Your task to perform on an android device: open app "Move to iOS" (install if not already installed) Image 0: 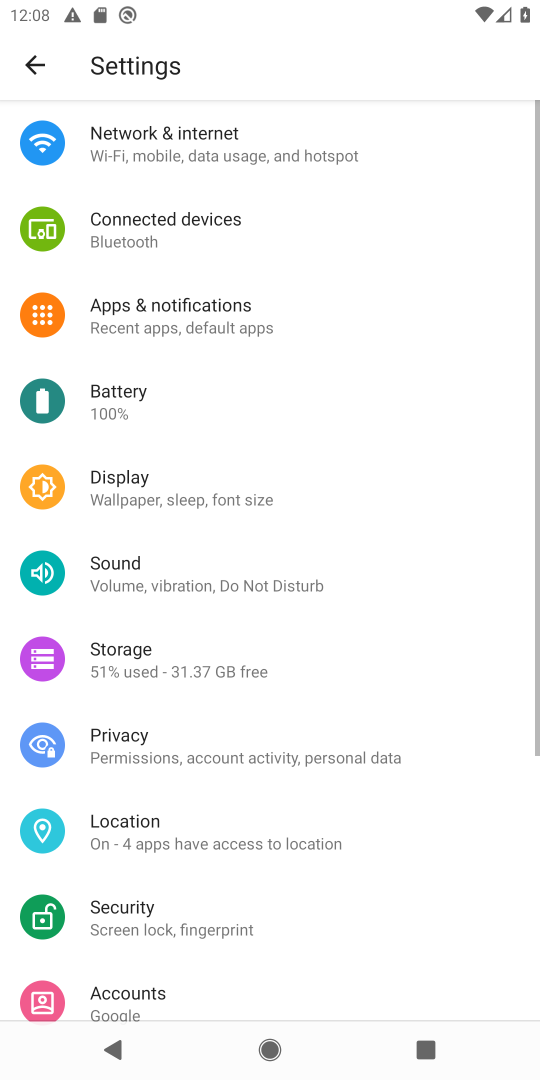
Step 0: press home button
Your task to perform on an android device: open app "Move to iOS" (install if not already installed) Image 1: 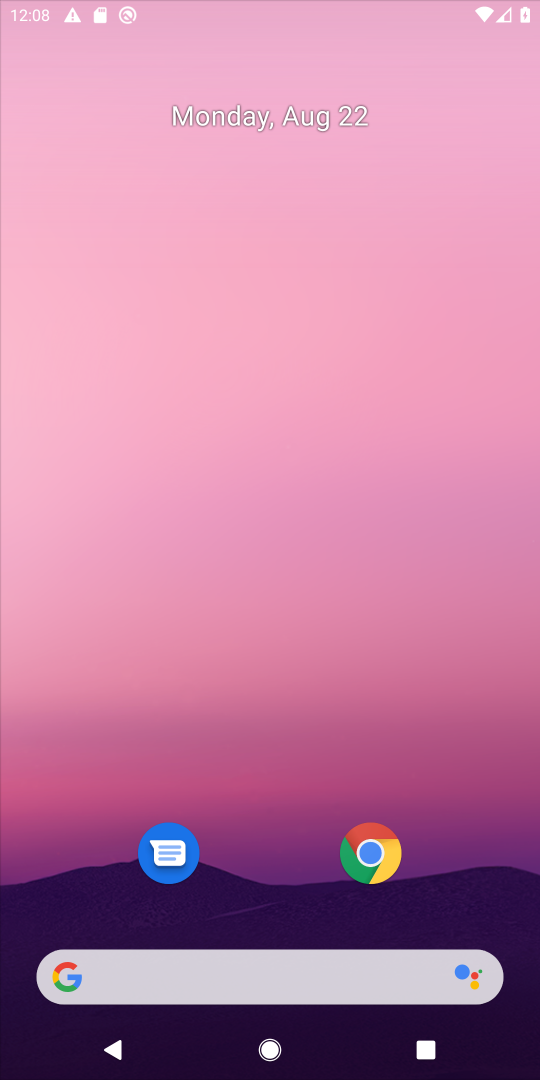
Step 1: drag from (263, 987) to (289, 225)
Your task to perform on an android device: open app "Move to iOS" (install if not already installed) Image 2: 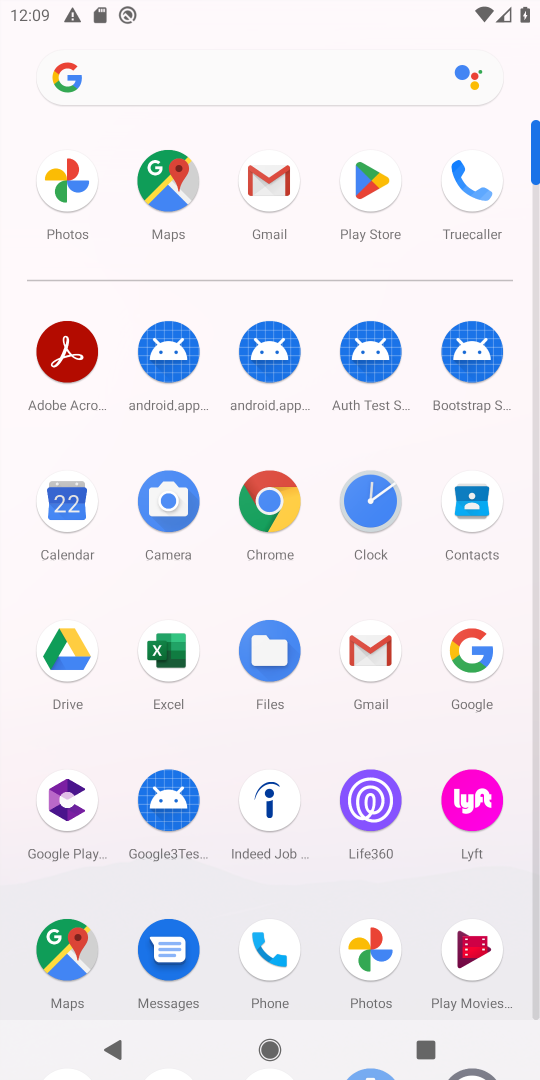
Step 2: click (377, 168)
Your task to perform on an android device: open app "Move to iOS" (install if not already installed) Image 3: 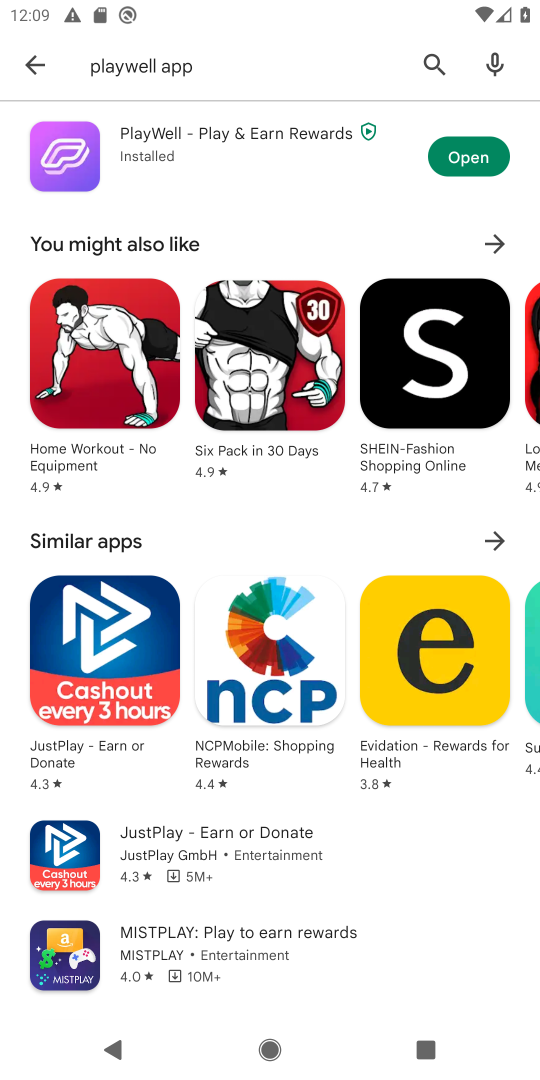
Step 3: click (32, 61)
Your task to perform on an android device: open app "Move to iOS" (install if not already installed) Image 4: 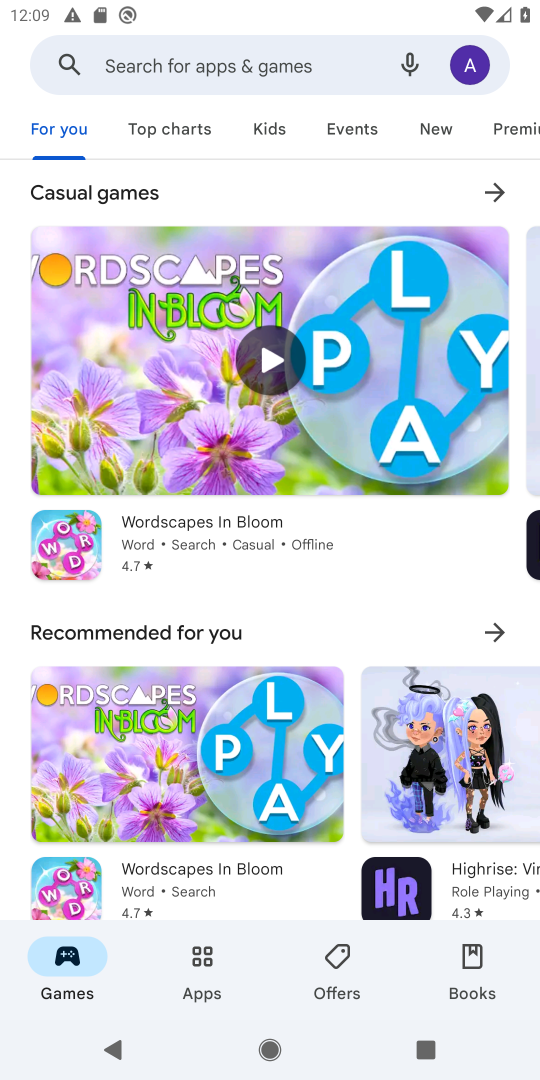
Step 4: click (237, 61)
Your task to perform on an android device: open app "Move to iOS" (install if not already installed) Image 5: 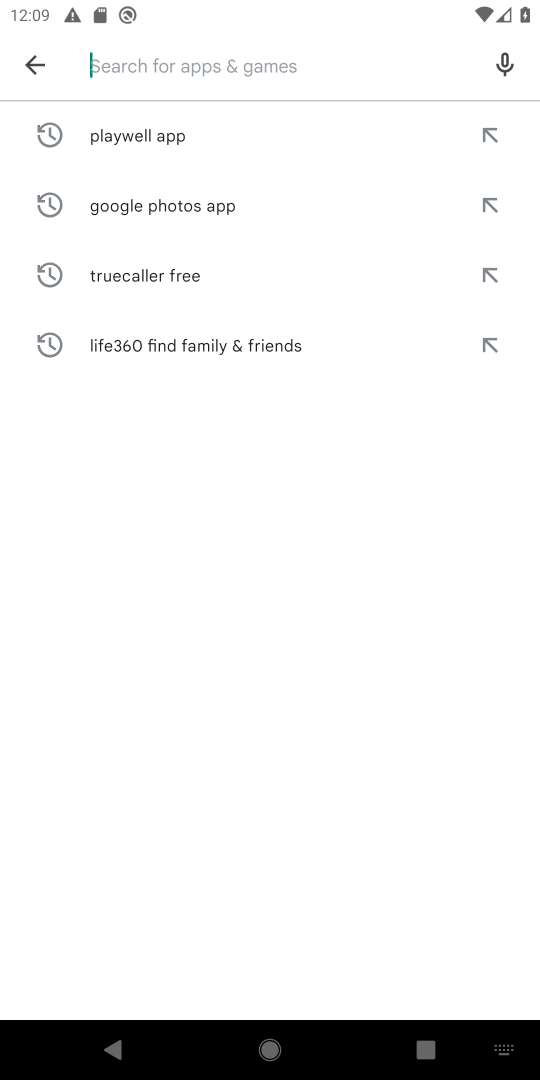
Step 5: type "Move to iOS "
Your task to perform on an android device: open app "Move to iOS" (install if not already installed) Image 6: 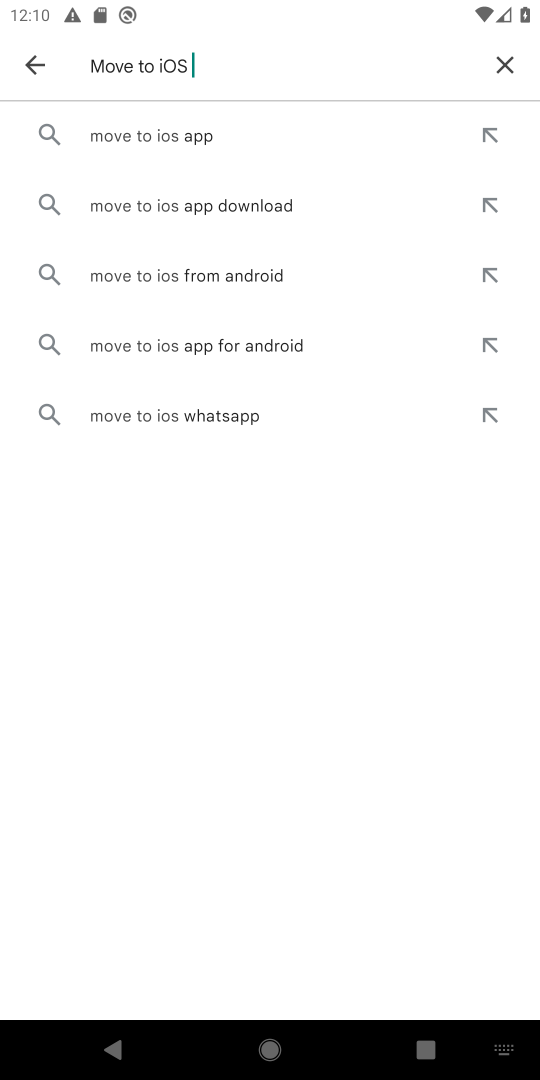
Step 6: click (205, 121)
Your task to perform on an android device: open app "Move to iOS" (install if not already installed) Image 7: 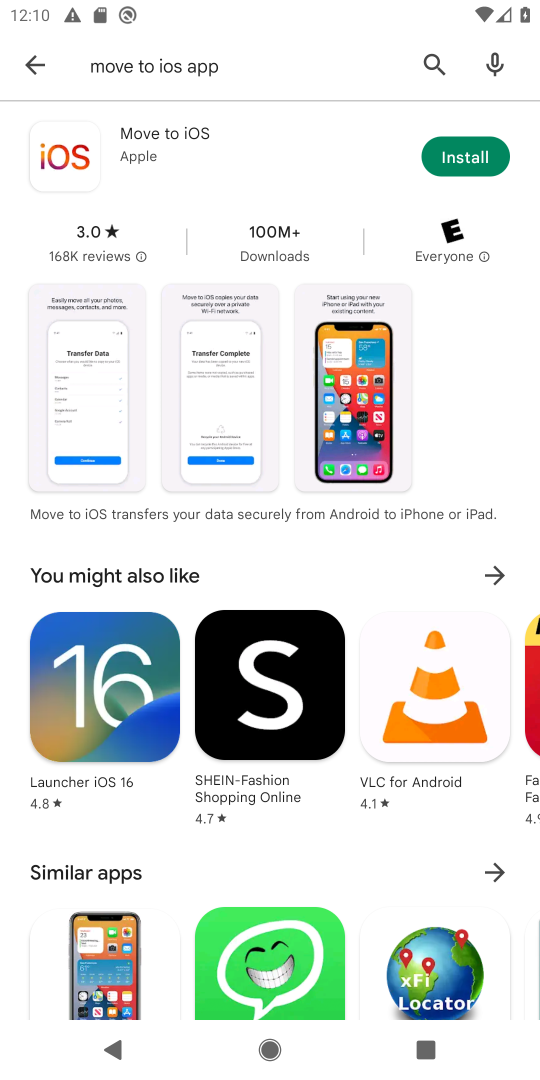
Step 7: click (470, 162)
Your task to perform on an android device: open app "Move to iOS" (install if not already installed) Image 8: 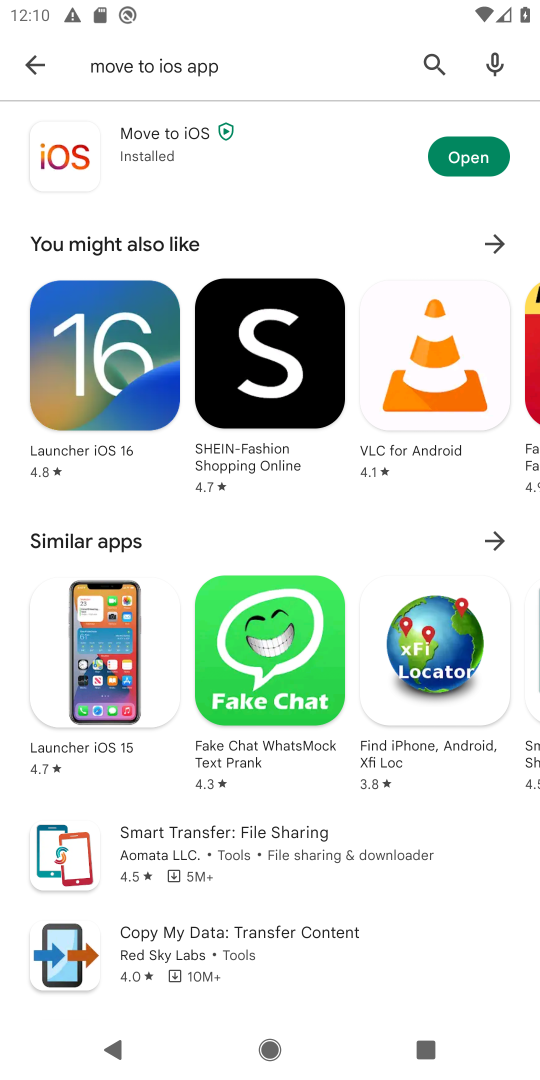
Step 8: click (473, 150)
Your task to perform on an android device: open app "Move to iOS" (install if not already installed) Image 9: 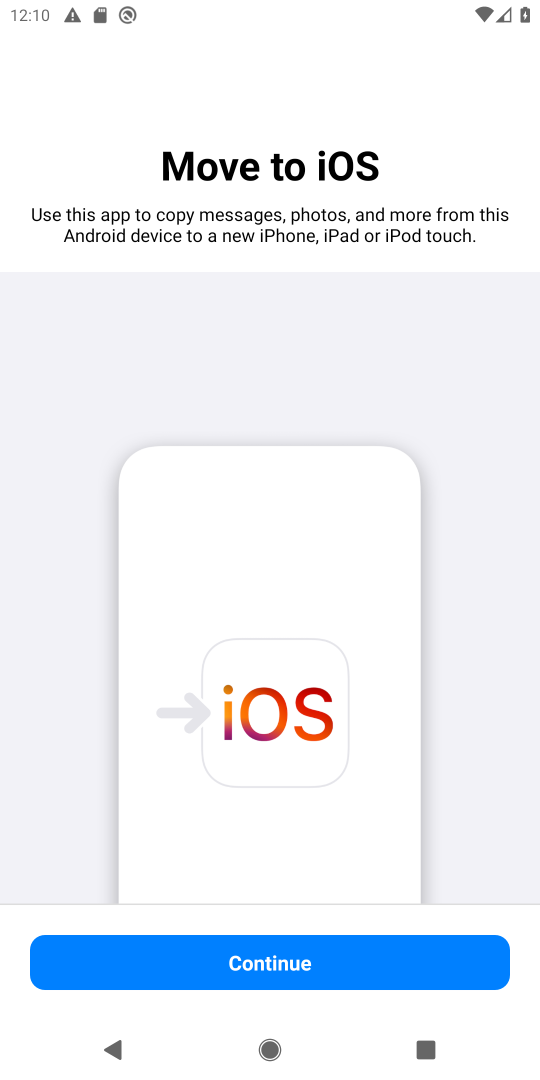
Step 9: task complete